Your task to perform on an android device: Go to ESPN.com Image 0: 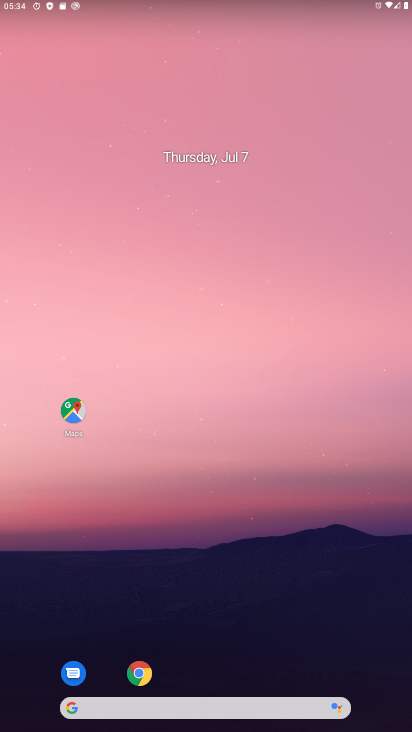
Step 0: drag from (231, 703) to (260, 55)
Your task to perform on an android device: Go to ESPN.com Image 1: 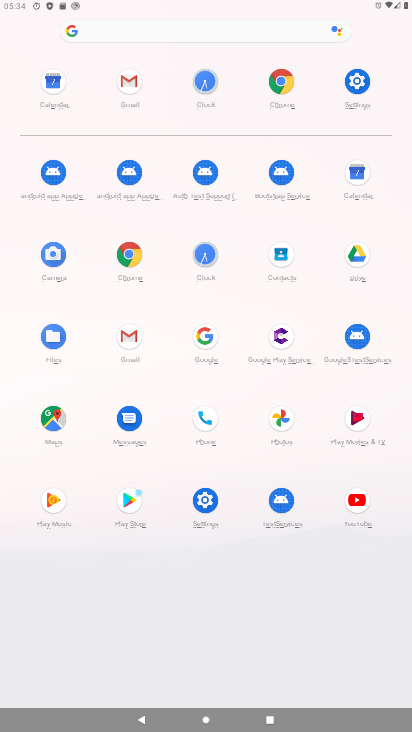
Step 1: click (130, 258)
Your task to perform on an android device: Go to ESPN.com Image 2: 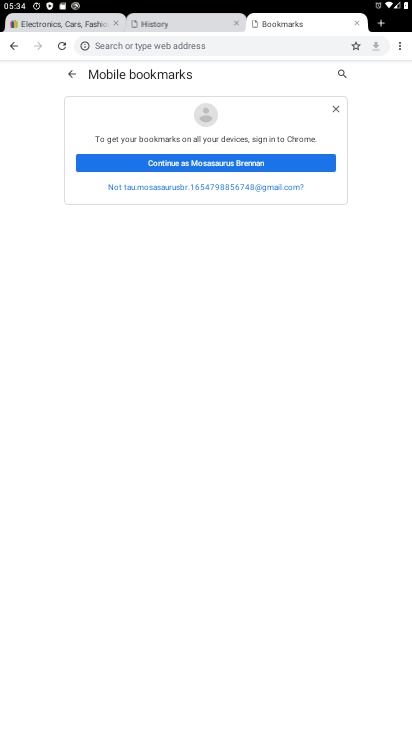
Step 2: drag from (397, 46) to (354, 123)
Your task to perform on an android device: Go to ESPN.com Image 3: 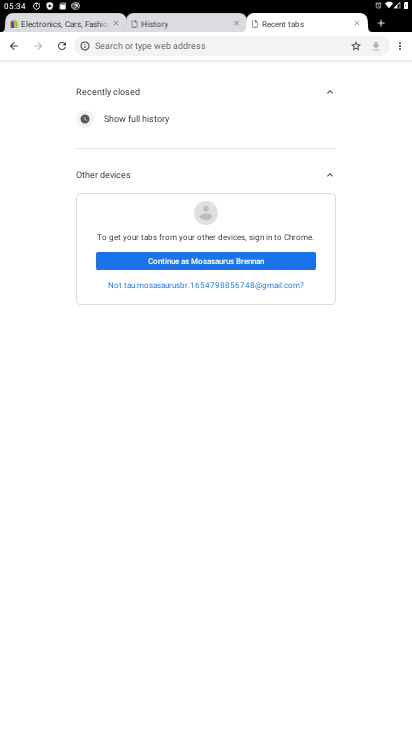
Step 3: click (158, 26)
Your task to perform on an android device: Go to ESPN.com Image 4: 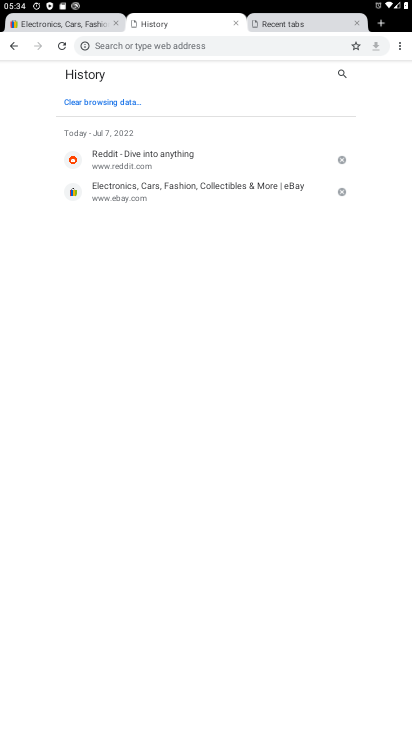
Step 4: click (208, 47)
Your task to perform on an android device: Go to ESPN.com Image 5: 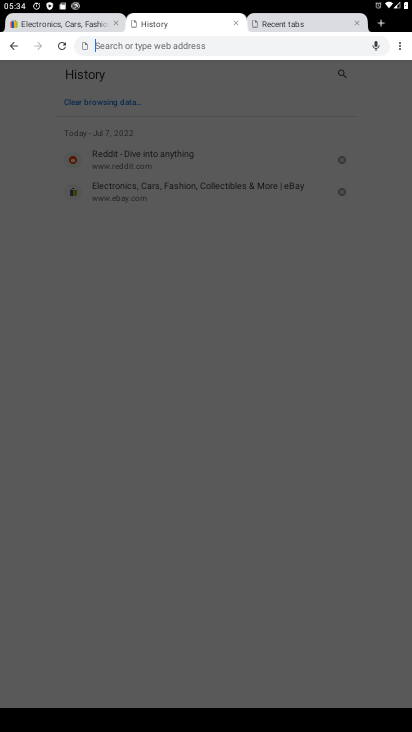
Step 5: type "espn.com"
Your task to perform on an android device: Go to ESPN.com Image 6: 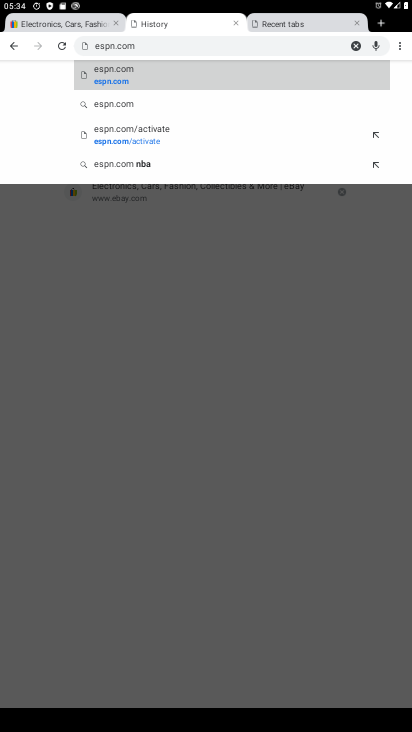
Step 6: click (142, 75)
Your task to perform on an android device: Go to ESPN.com Image 7: 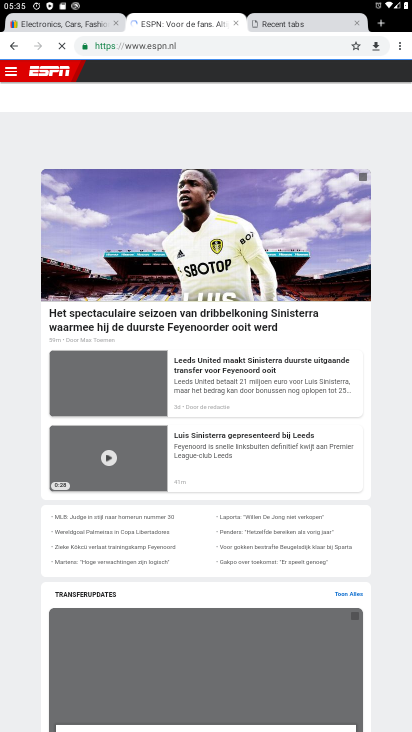
Step 7: task complete